Your task to perform on an android device: Go to Yahoo.com Image 0: 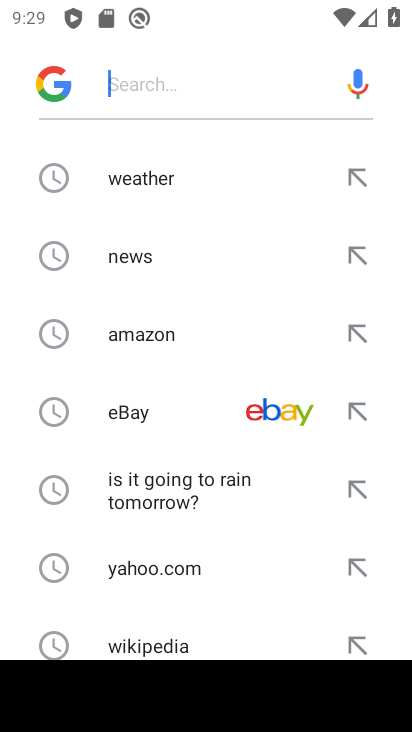
Step 0: press back button
Your task to perform on an android device: Go to Yahoo.com Image 1: 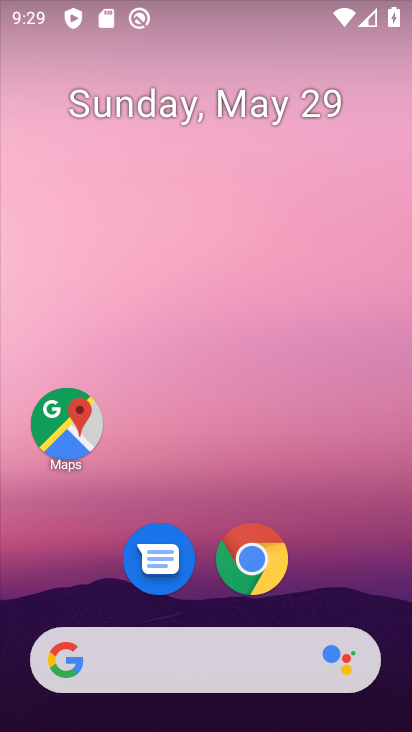
Step 1: click (271, 569)
Your task to perform on an android device: Go to Yahoo.com Image 2: 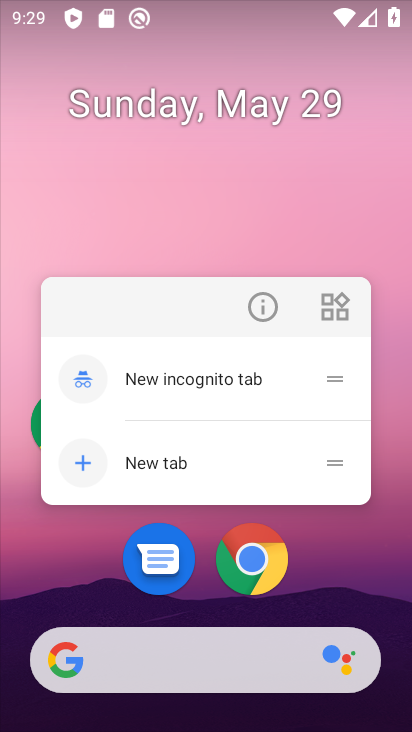
Step 2: click (262, 560)
Your task to perform on an android device: Go to Yahoo.com Image 3: 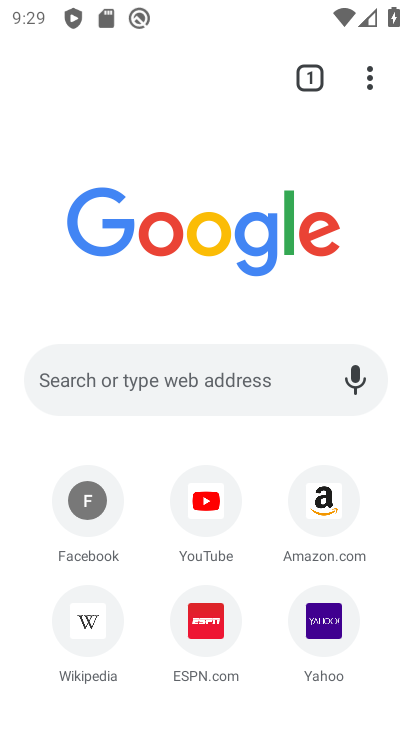
Step 3: click (353, 612)
Your task to perform on an android device: Go to Yahoo.com Image 4: 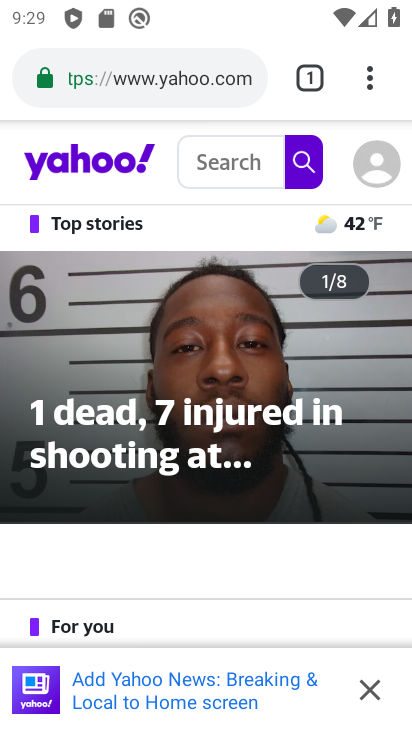
Step 4: task complete